Your task to perform on an android device: Open wifi settings Image 0: 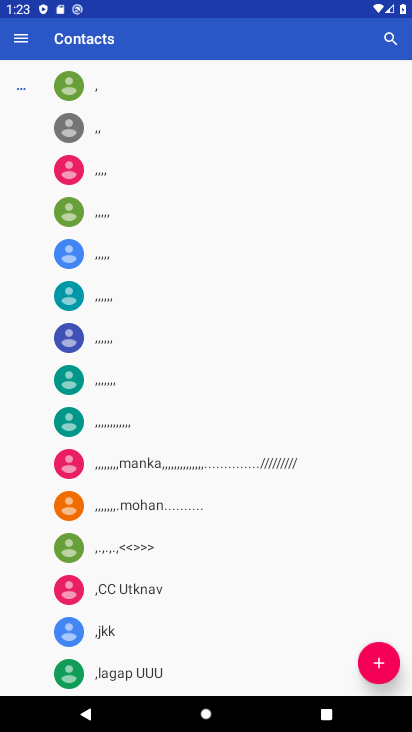
Step 0: press home button
Your task to perform on an android device: Open wifi settings Image 1: 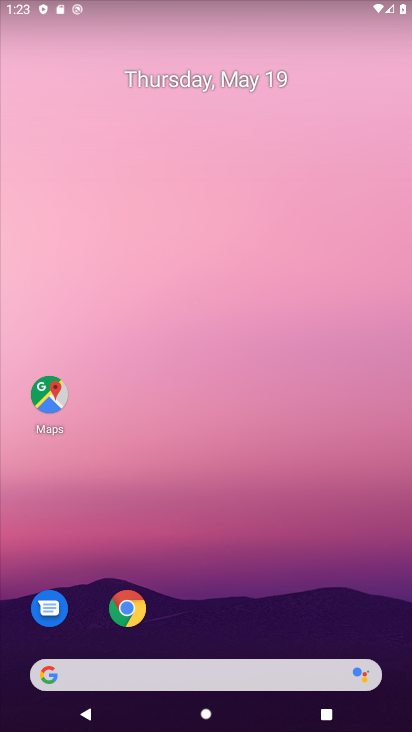
Step 1: drag from (245, 612) to (239, 142)
Your task to perform on an android device: Open wifi settings Image 2: 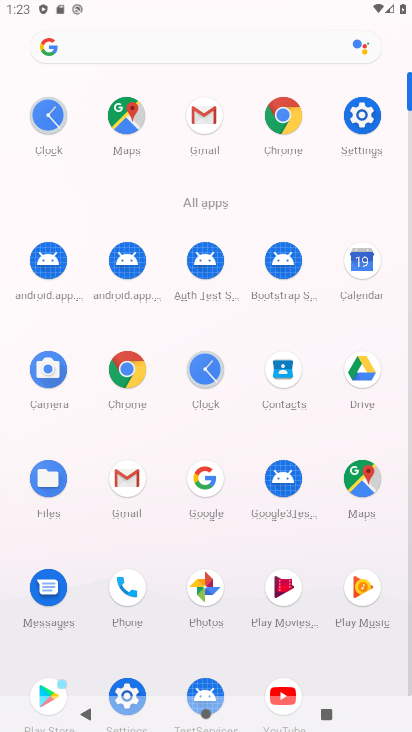
Step 2: click (366, 129)
Your task to perform on an android device: Open wifi settings Image 3: 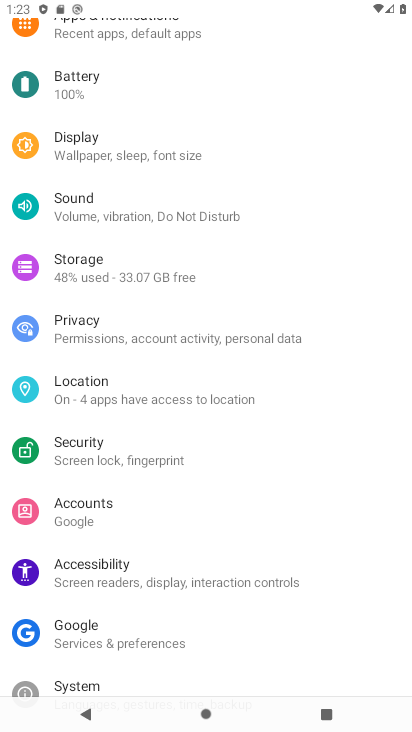
Step 3: drag from (174, 98) to (134, 568)
Your task to perform on an android device: Open wifi settings Image 4: 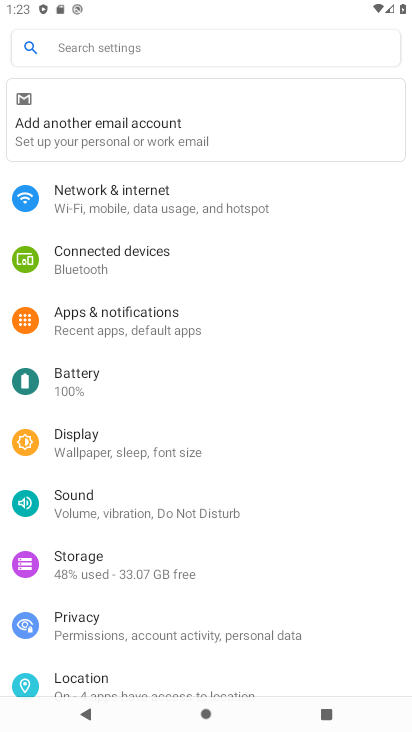
Step 4: click (139, 187)
Your task to perform on an android device: Open wifi settings Image 5: 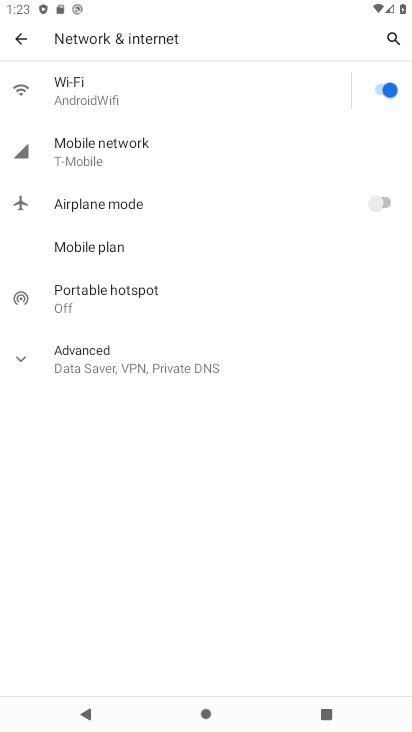
Step 5: click (160, 92)
Your task to perform on an android device: Open wifi settings Image 6: 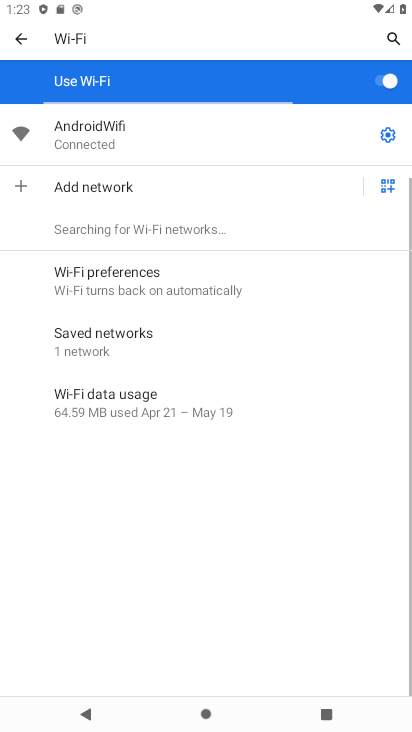
Step 6: task complete